Your task to perform on an android device: What's the weather like in Beijing? Image 0: 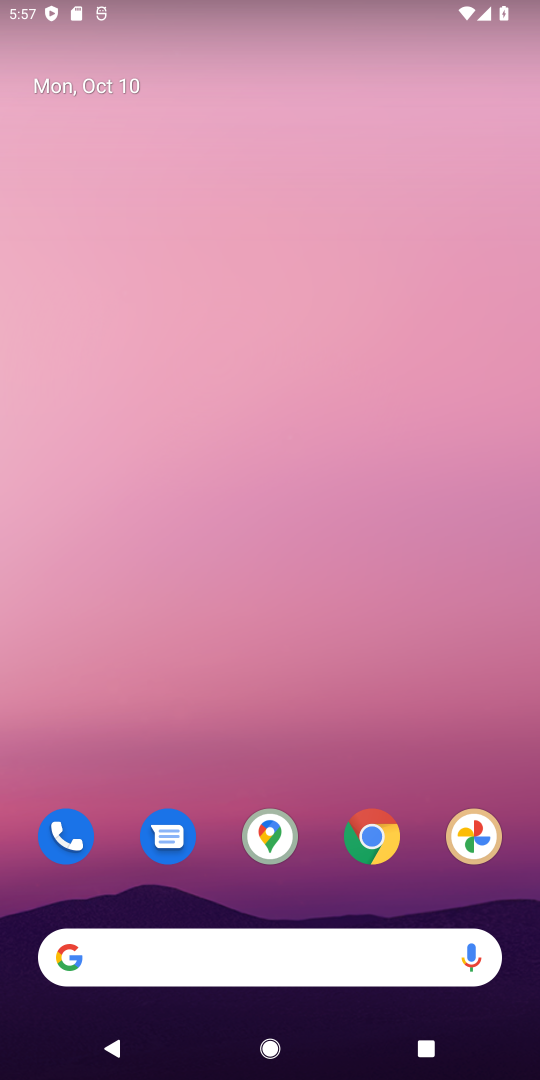
Step 0: click (374, 837)
Your task to perform on an android device: What's the weather like in Beijing? Image 1: 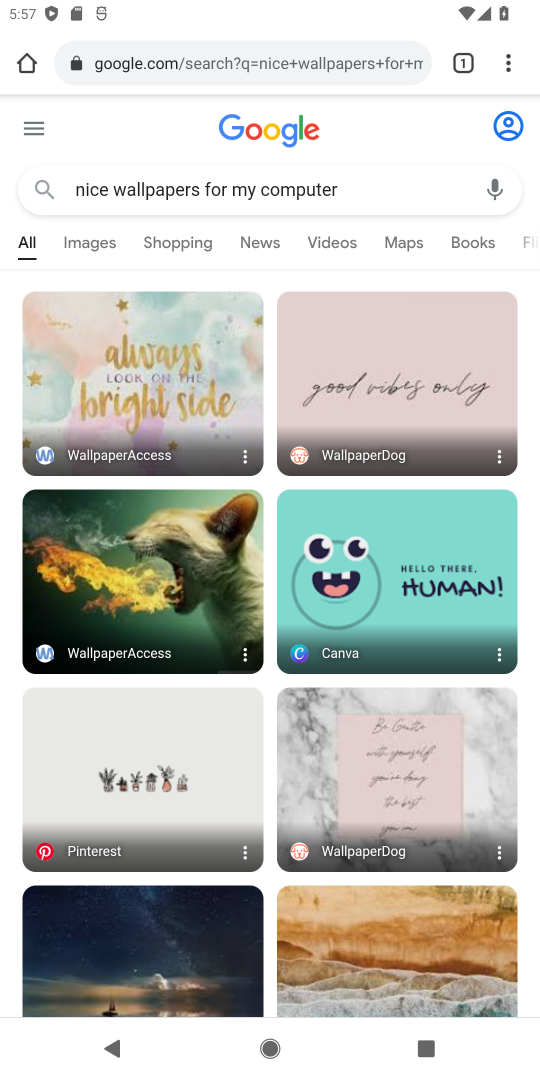
Step 1: click (253, 42)
Your task to perform on an android device: What's the weather like in Beijing? Image 2: 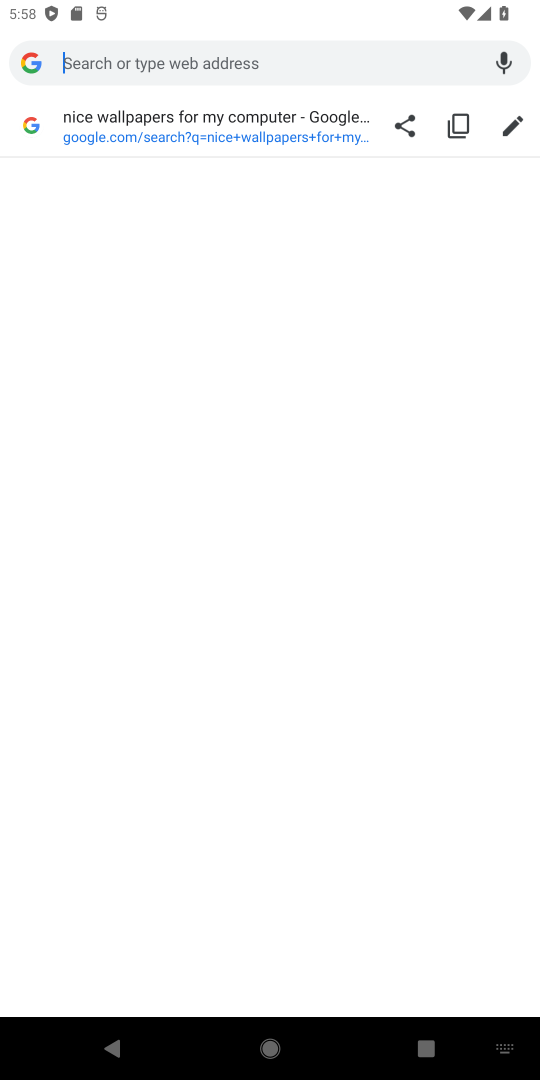
Step 2: type "weather like in Beijing?"
Your task to perform on an android device: What's the weather like in Beijing? Image 3: 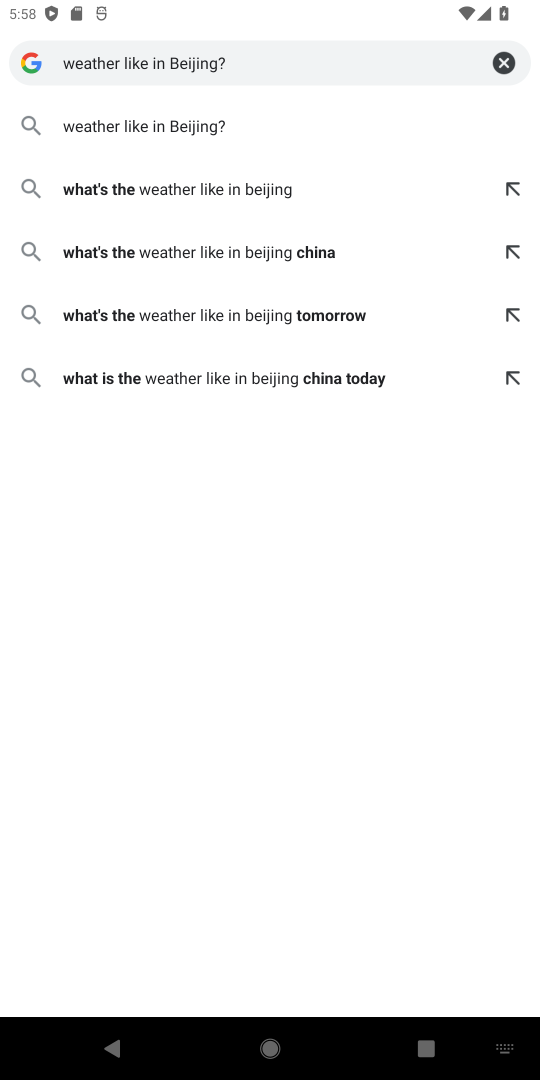
Step 3: click (118, 125)
Your task to perform on an android device: What's the weather like in Beijing? Image 4: 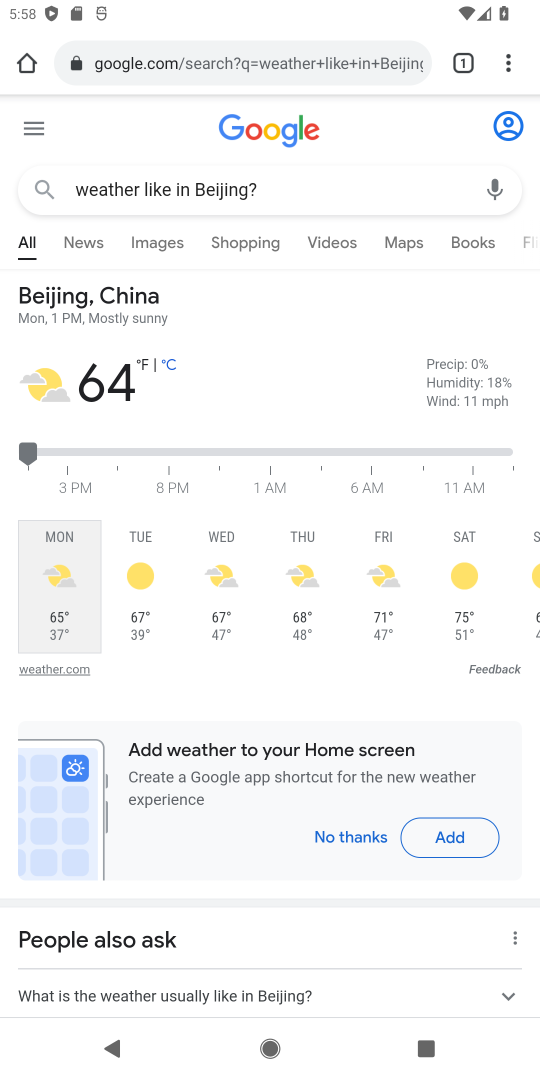
Step 4: task complete